Your task to perform on an android device: Go to Maps Image 0: 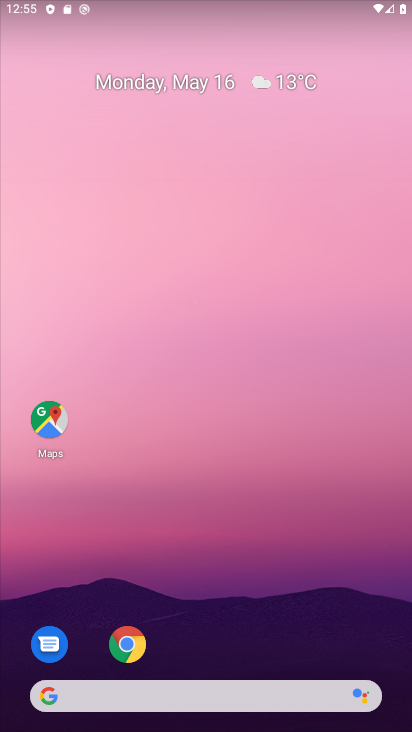
Step 0: drag from (251, 597) to (328, 88)
Your task to perform on an android device: Go to Maps Image 1: 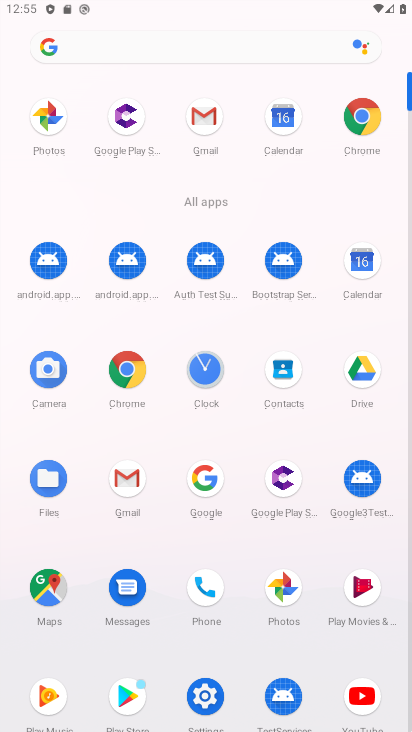
Step 1: click (47, 598)
Your task to perform on an android device: Go to Maps Image 2: 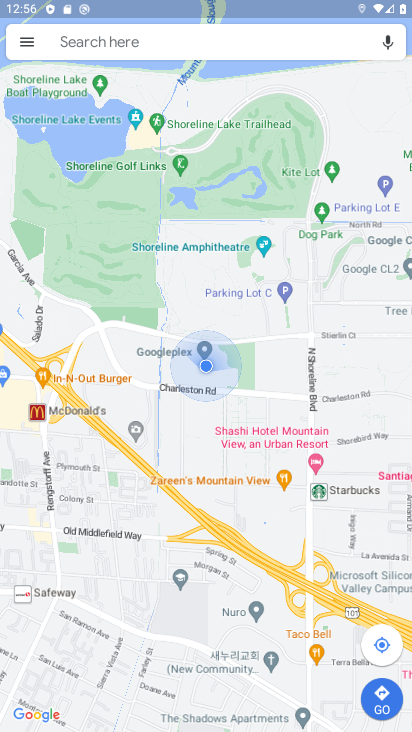
Step 2: task complete